Your task to perform on an android device: turn off picture-in-picture Image 0: 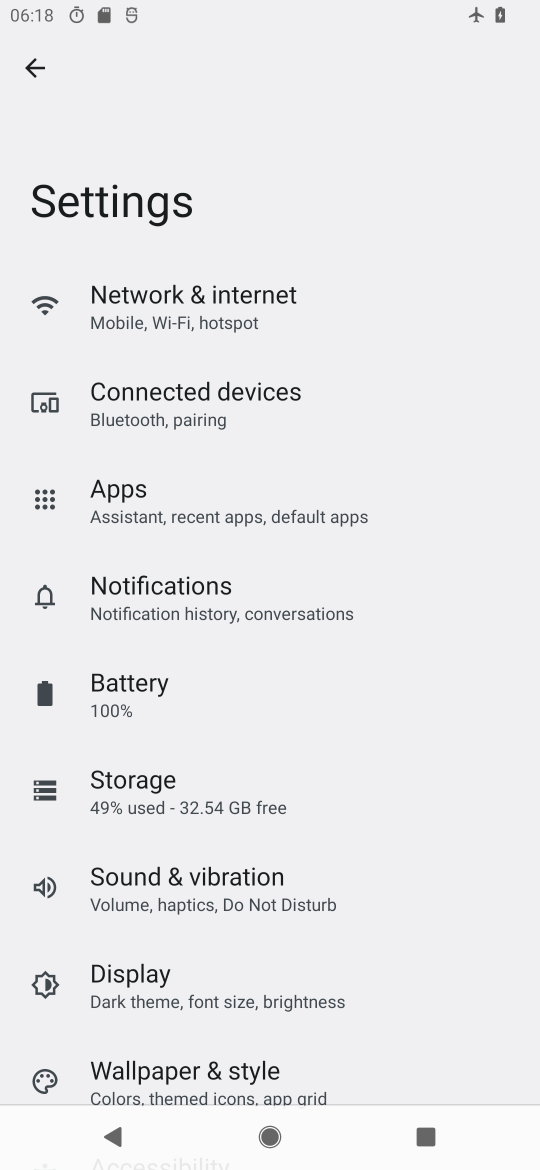
Step 0: press home button
Your task to perform on an android device: turn off picture-in-picture Image 1: 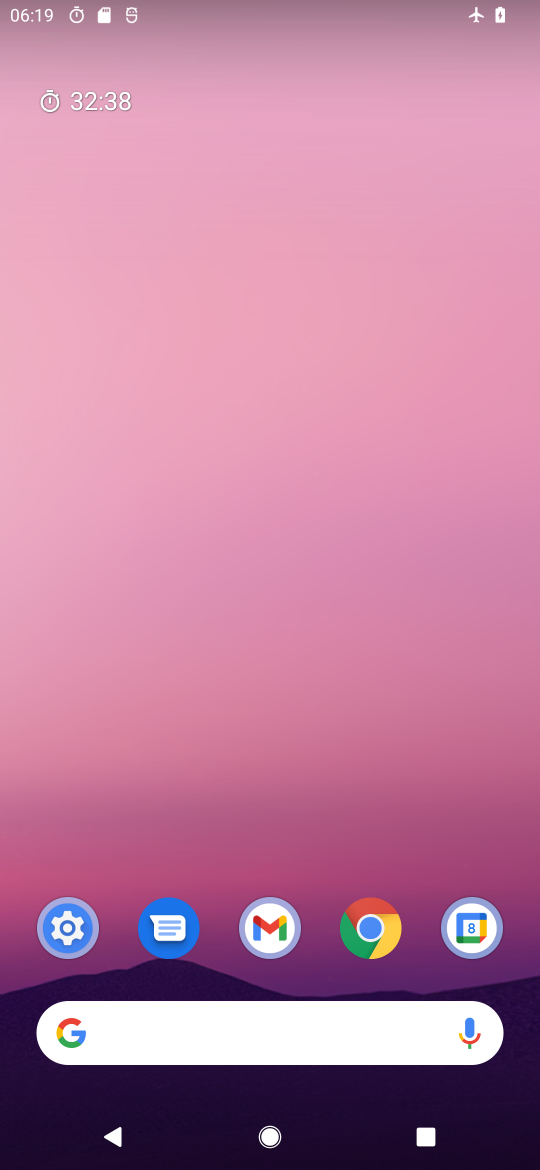
Step 1: click (366, 927)
Your task to perform on an android device: turn off picture-in-picture Image 2: 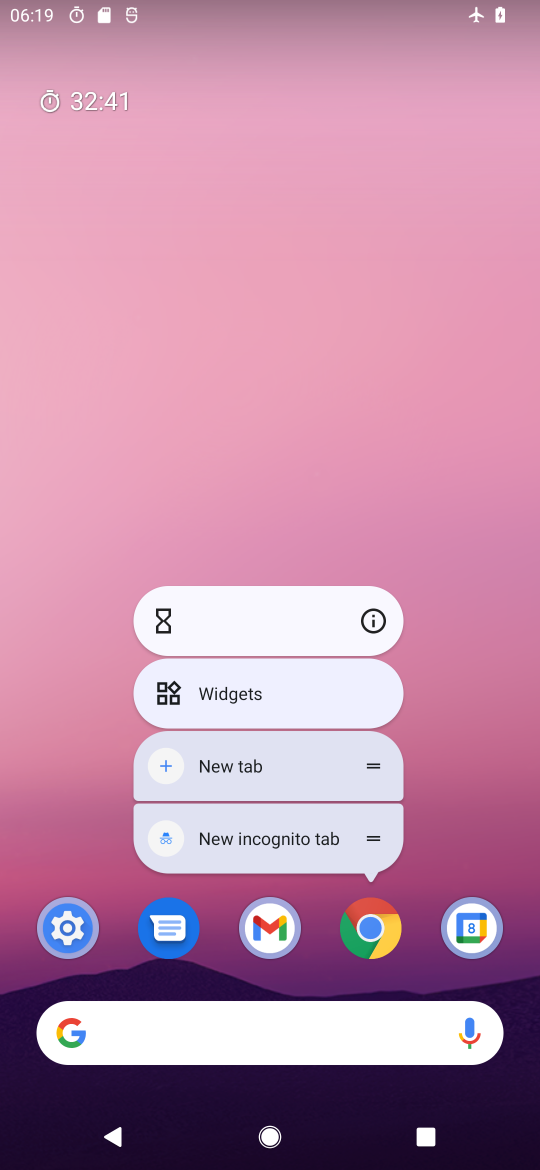
Step 2: click (378, 612)
Your task to perform on an android device: turn off picture-in-picture Image 3: 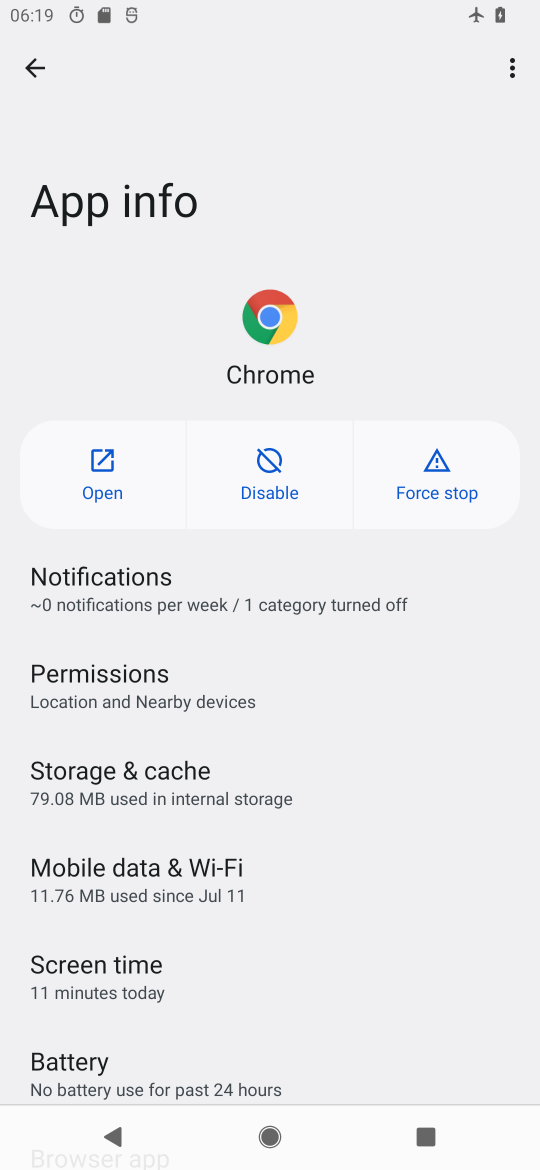
Step 3: drag from (295, 943) to (307, 490)
Your task to perform on an android device: turn off picture-in-picture Image 4: 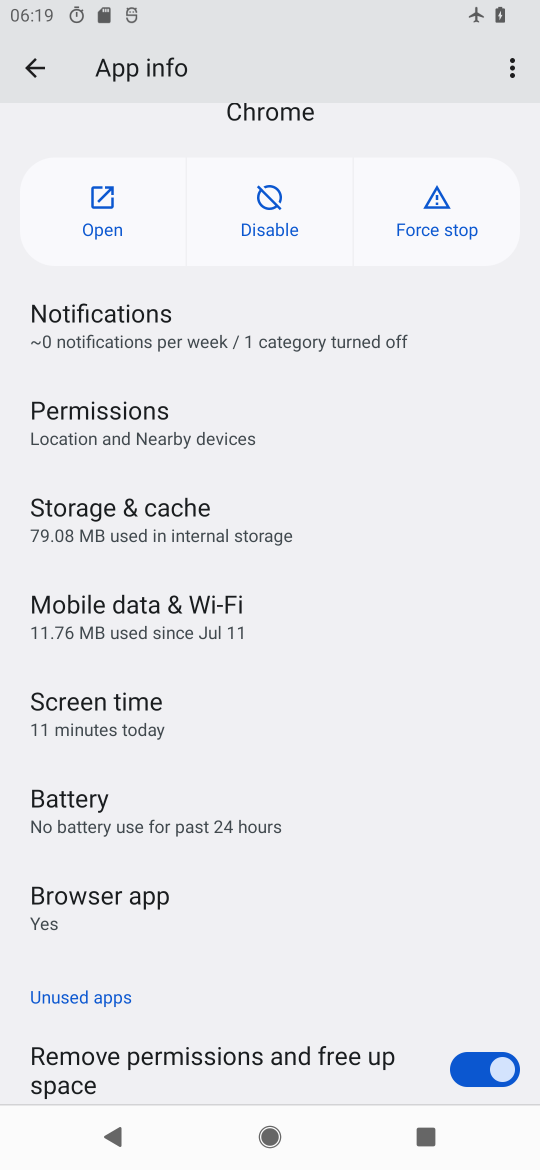
Step 4: drag from (217, 939) to (245, 390)
Your task to perform on an android device: turn off picture-in-picture Image 5: 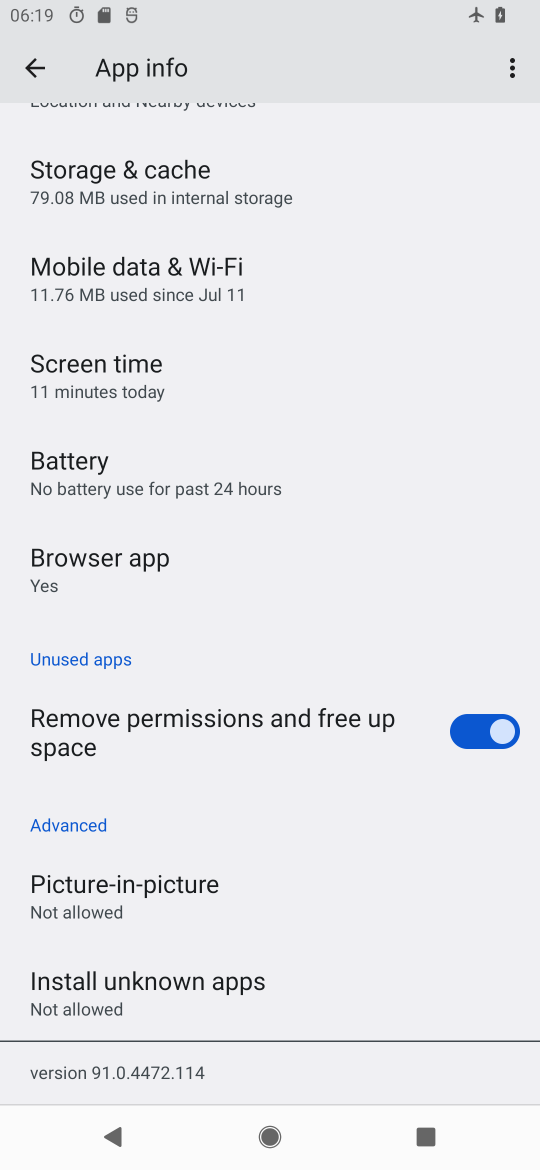
Step 5: click (154, 901)
Your task to perform on an android device: turn off picture-in-picture Image 6: 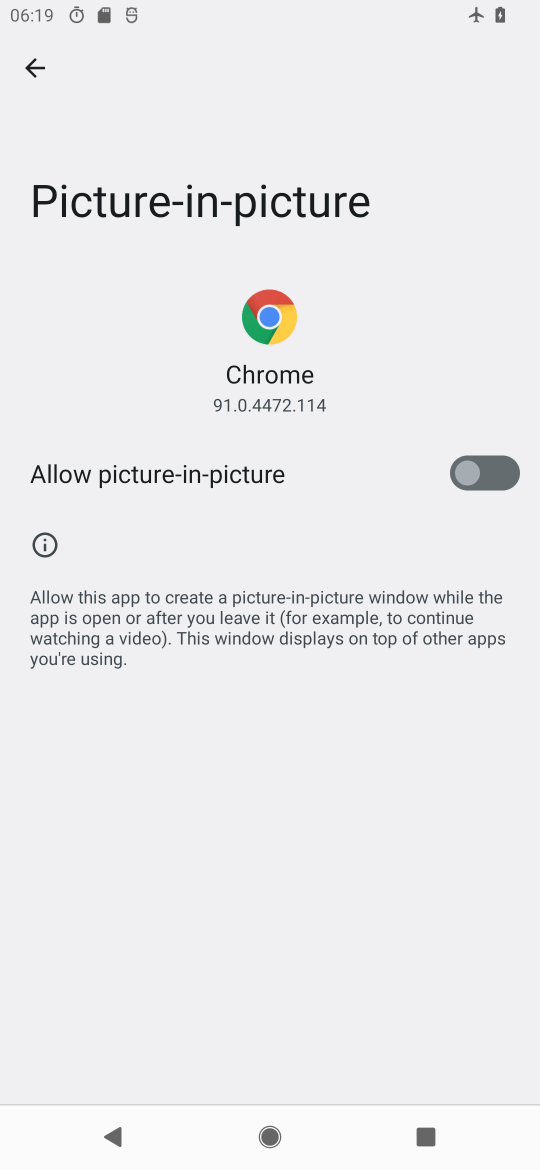
Step 6: task complete